Your task to perform on an android device: Go to Reddit.com Image 0: 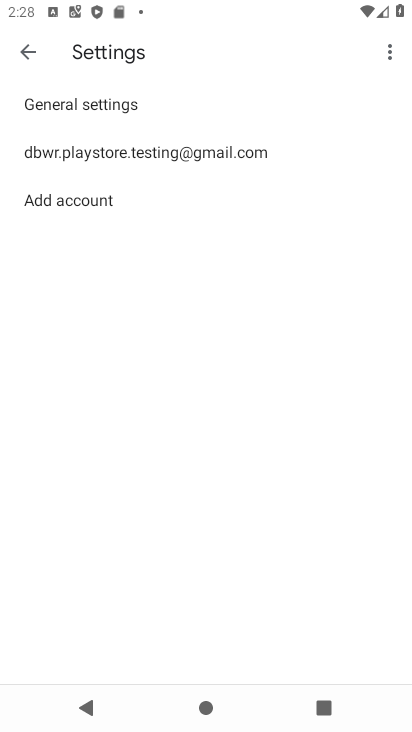
Step 0: press home button
Your task to perform on an android device: Go to Reddit.com Image 1: 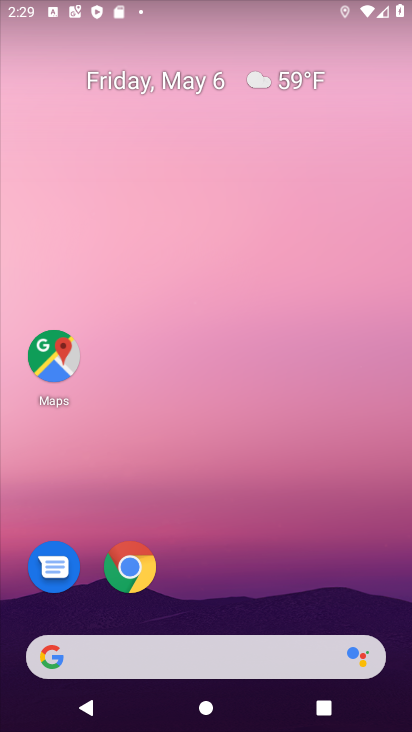
Step 1: click (127, 568)
Your task to perform on an android device: Go to Reddit.com Image 2: 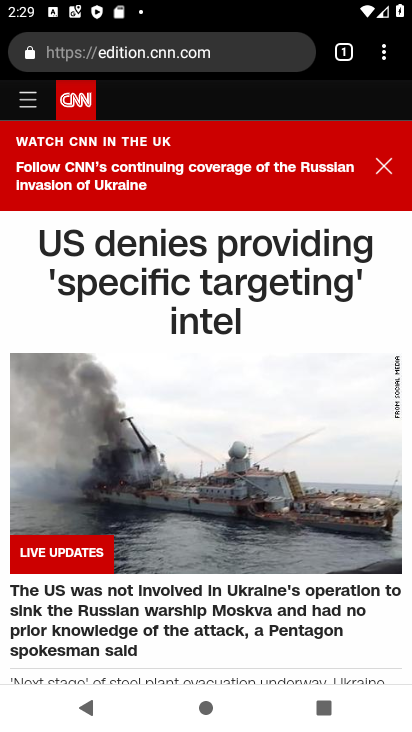
Step 2: click (103, 44)
Your task to perform on an android device: Go to Reddit.com Image 3: 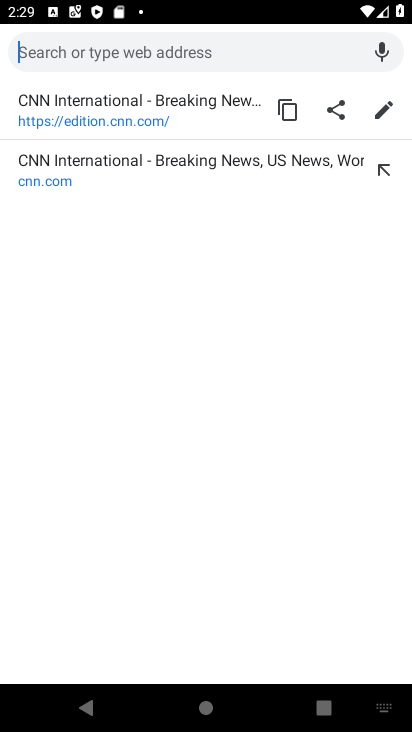
Step 3: type "reddit.com"
Your task to perform on an android device: Go to Reddit.com Image 4: 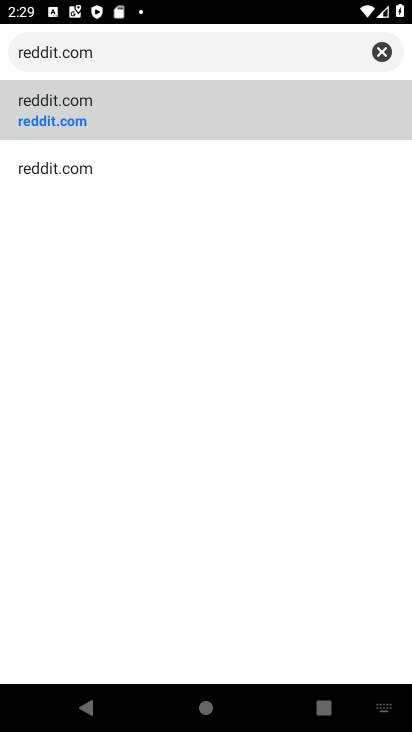
Step 4: click (53, 101)
Your task to perform on an android device: Go to Reddit.com Image 5: 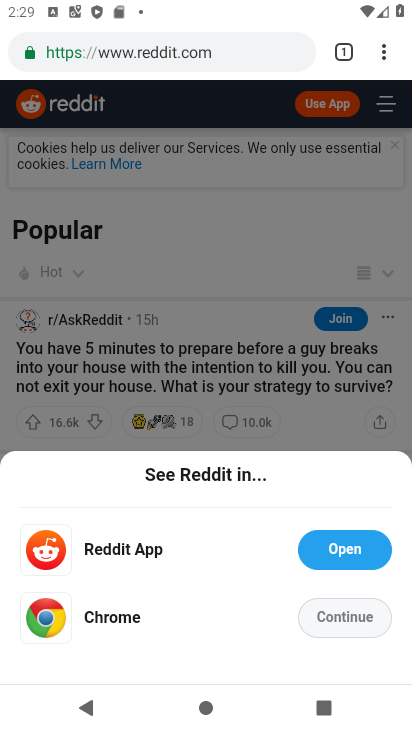
Step 5: task complete